Your task to perform on an android device: toggle javascript in the chrome app Image 0: 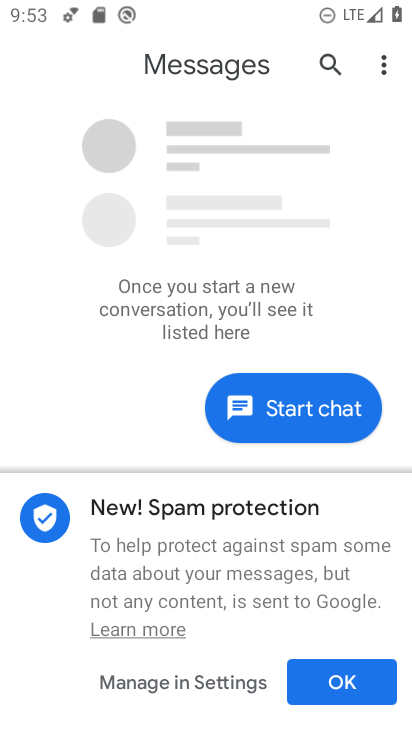
Step 0: press home button
Your task to perform on an android device: toggle javascript in the chrome app Image 1: 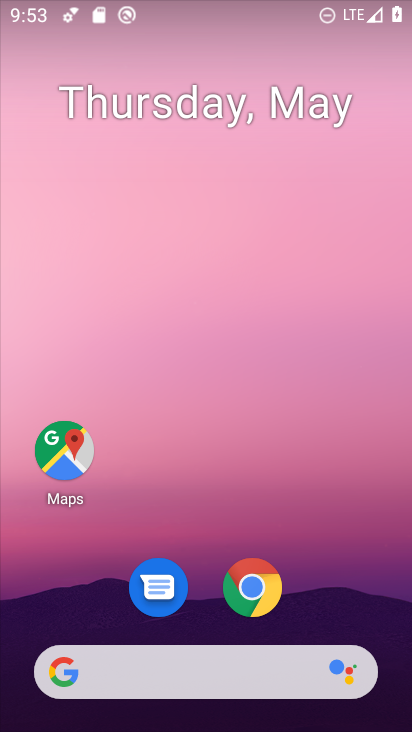
Step 1: click (259, 600)
Your task to perform on an android device: toggle javascript in the chrome app Image 2: 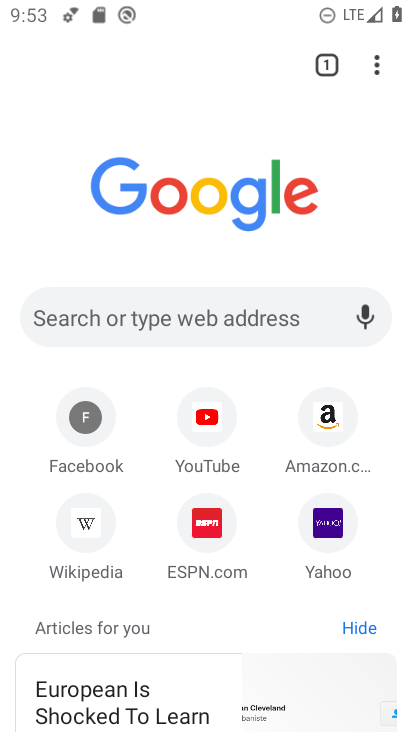
Step 2: click (382, 65)
Your task to perform on an android device: toggle javascript in the chrome app Image 3: 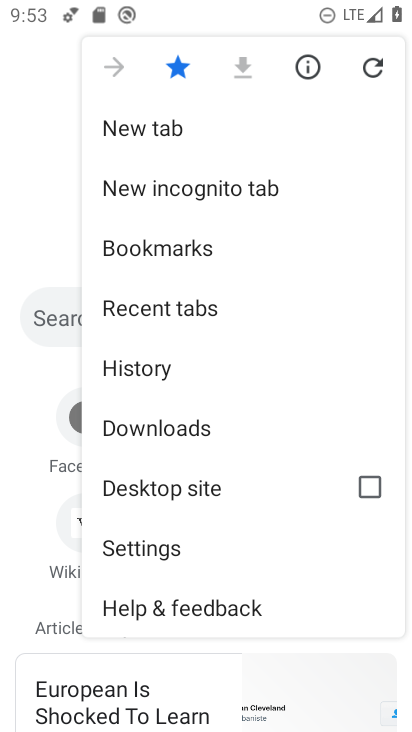
Step 3: click (163, 552)
Your task to perform on an android device: toggle javascript in the chrome app Image 4: 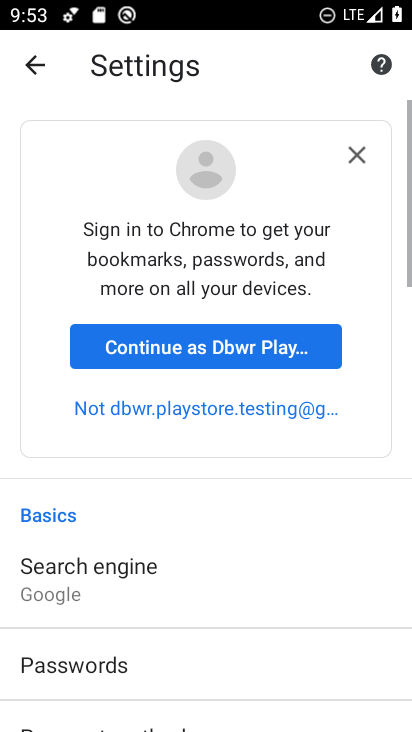
Step 4: drag from (190, 571) to (227, 121)
Your task to perform on an android device: toggle javascript in the chrome app Image 5: 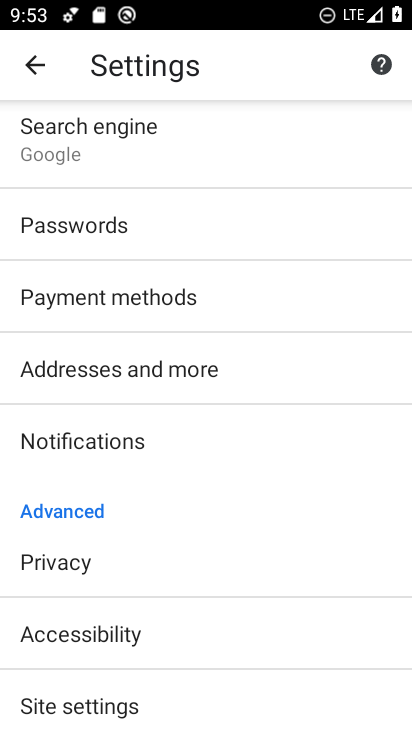
Step 5: drag from (152, 548) to (185, 184)
Your task to perform on an android device: toggle javascript in the chrome app Image 6: 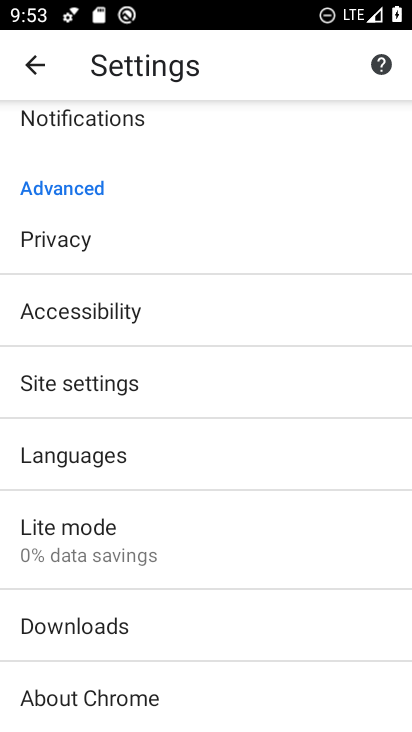
Step 6: click (76, 382)
Your task to perform on an android device: toggle javascript in the chrome app Image 7: 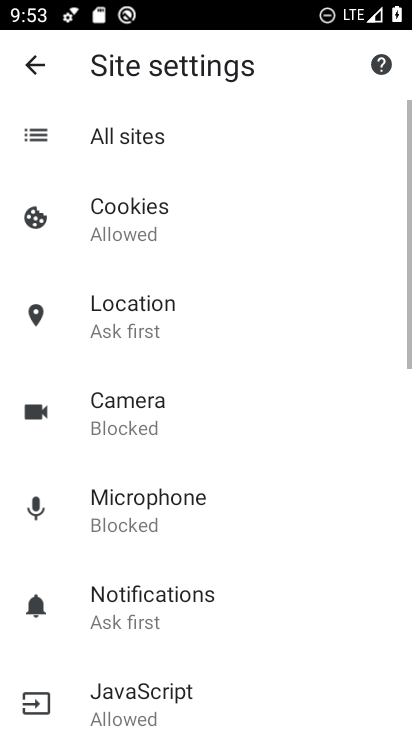
Step 7: drag from (236, 602) to (251, 361)
Your task to perform on an android device: toggle javascript in the chrome app Image 8: 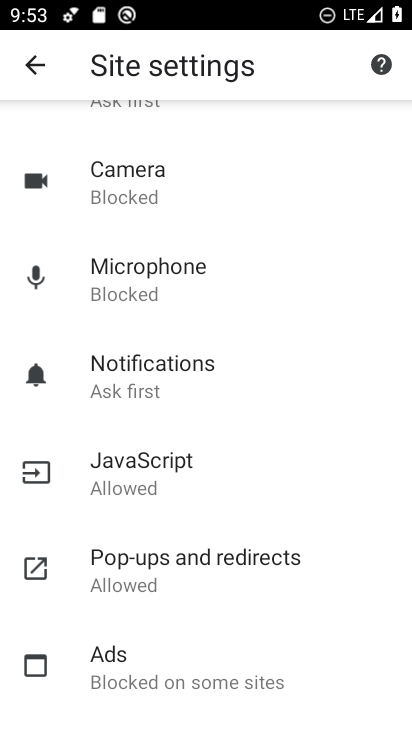
Step 8: click (143, 466)
Your task to perform on an android device: toggle javascript in the chrome app Image 9: 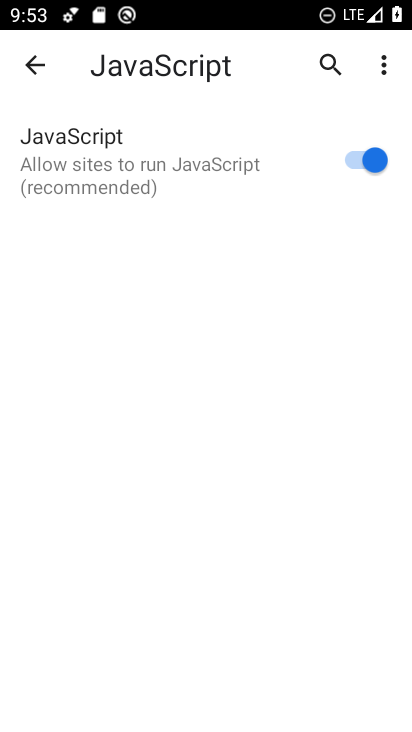
Step 9: click (365, 156)
Your task to perform on an android device: toggle javascript in the chrome app Image 10: 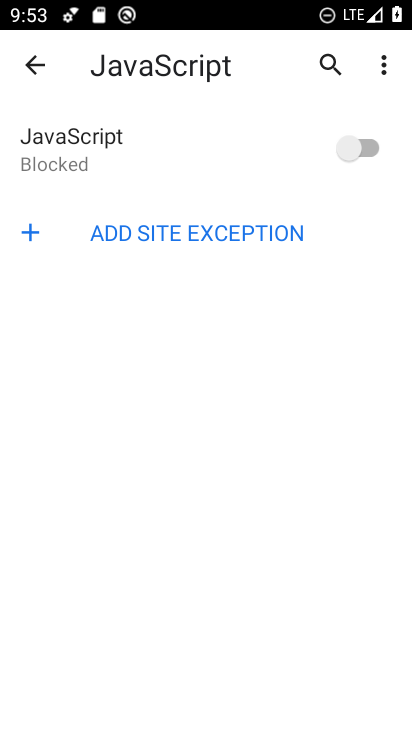
Step 10: task complete